Your task to perform on an android device: empty trash in google photos Image 0: 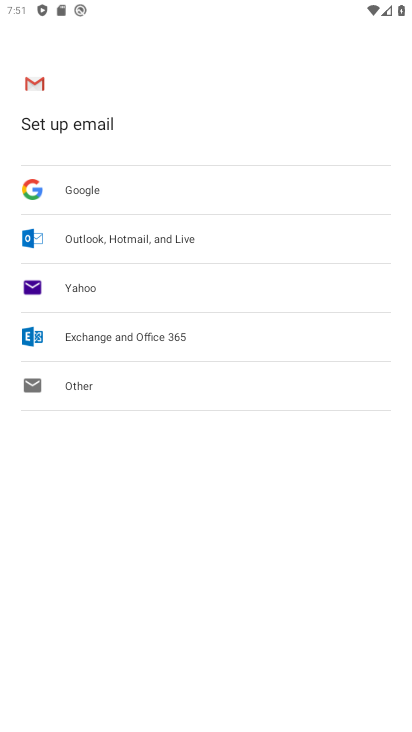
Step 0: press home button
Your task to perform on an android device: empty trash in google photos Image 1: 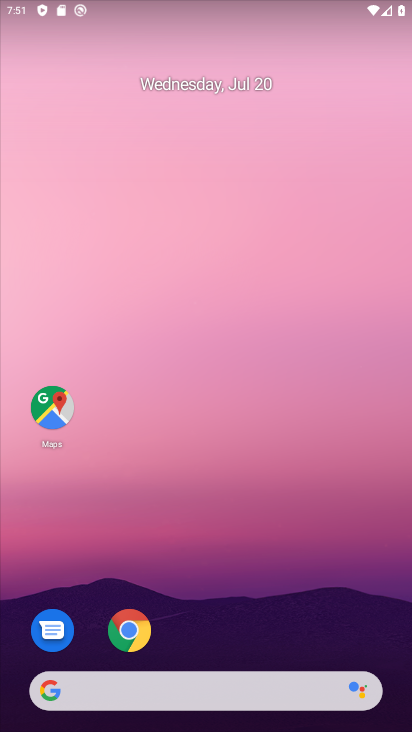
Step 1: drag from (361, 622) to (342, 140)
Your task to perform on an android device: empty trash in google photos Image 2: 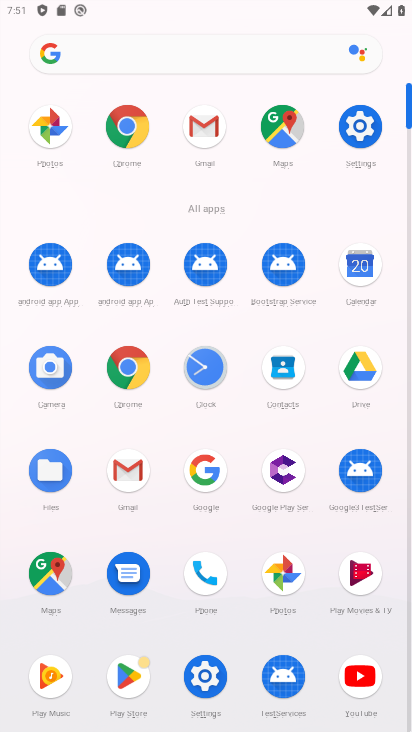
Step 2: click (272, 567)
Your task to perform on an android device: empty trash in google photos Image 3: 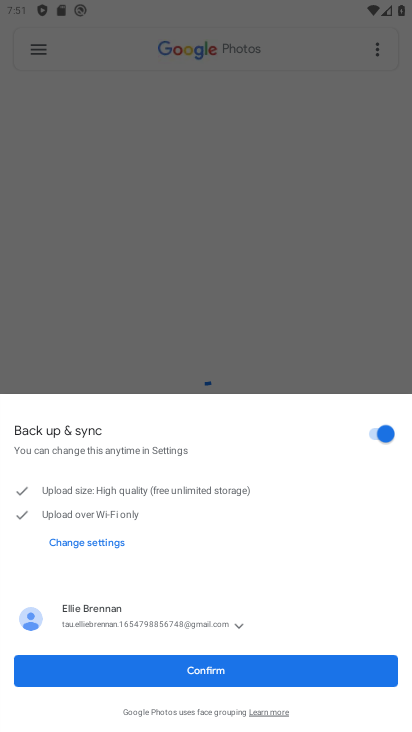
Step 3: click (260, 674)
Your task to perform on an android device: empty trash in google photos Image 4: 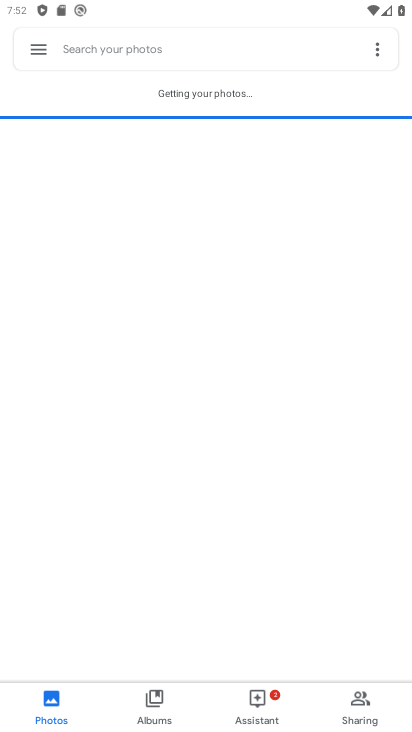
Step 4: click (44, 49)
Your task to perform on an android device: empty trash in google photos Image 5: 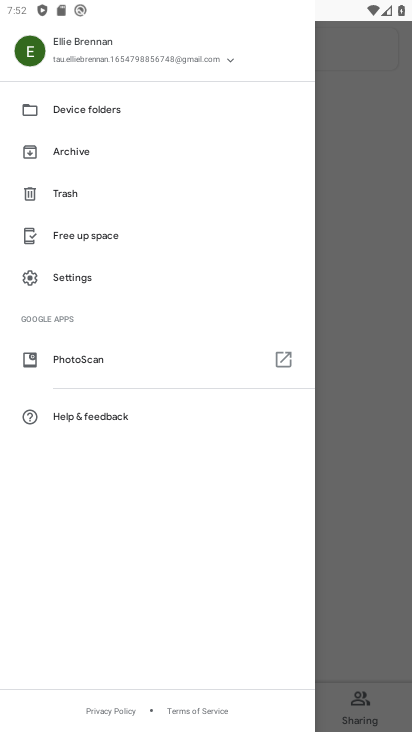
Step 5: click (78, 187)
Your task to perform on an android device: empty trash in google photos Image 6: 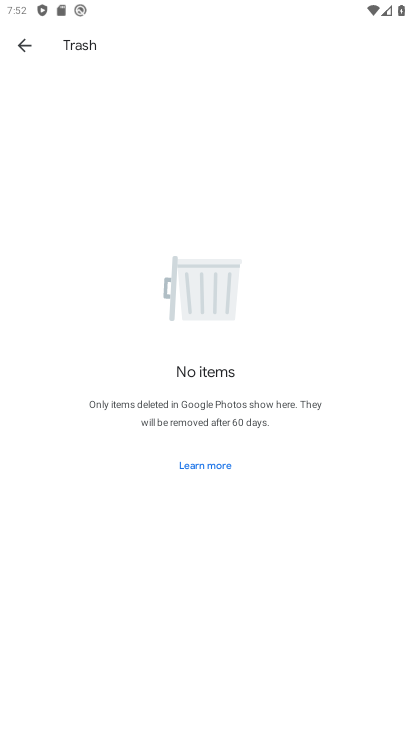
Step 6: task complete